Your task to perform on an android device: see tabs open on other devices in the chrome app Image 0: 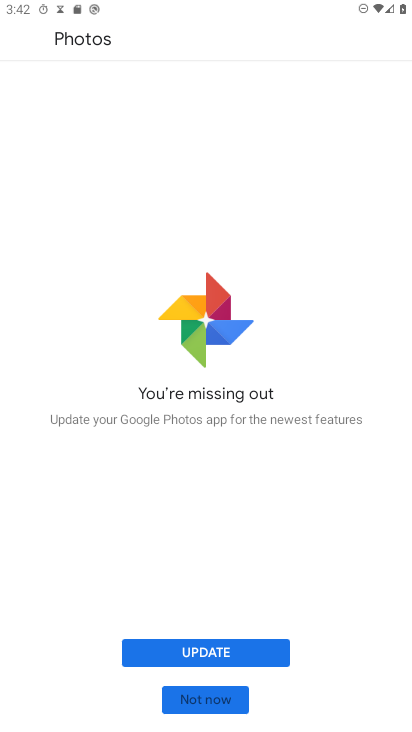
Step 0: press home button
Your task to perform on an android device: see tabs open on other devices in the chrome app Image 1: 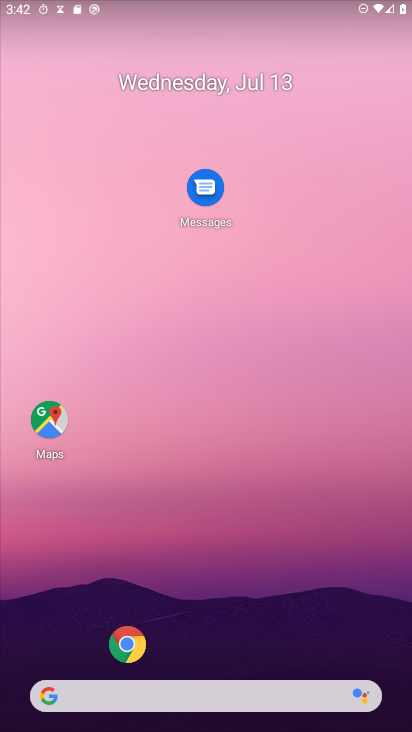
Step 1: click (120, 629)
Your task to perform on an android device: see tabs open on other devices in the chrome app Image 2: 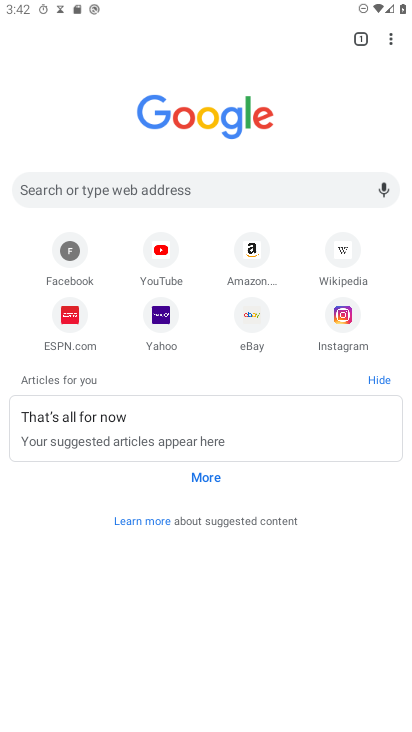
Step 2: task complete